Your task to perform on an android device: Open ESPN.com Image 0: 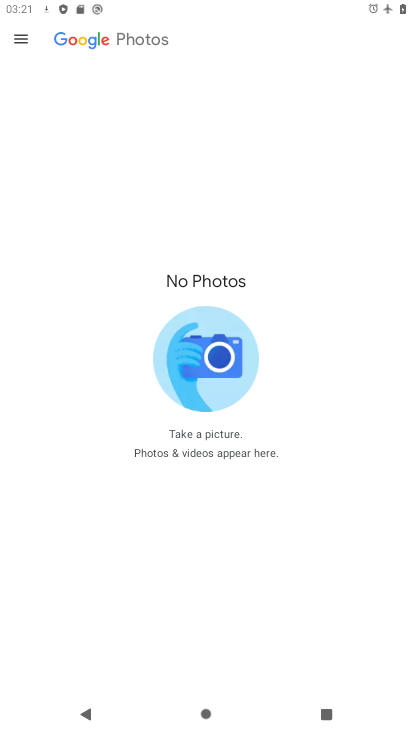
Step 0: press home button
Your task to perform on an android device: Open ESPN.com Image 1: 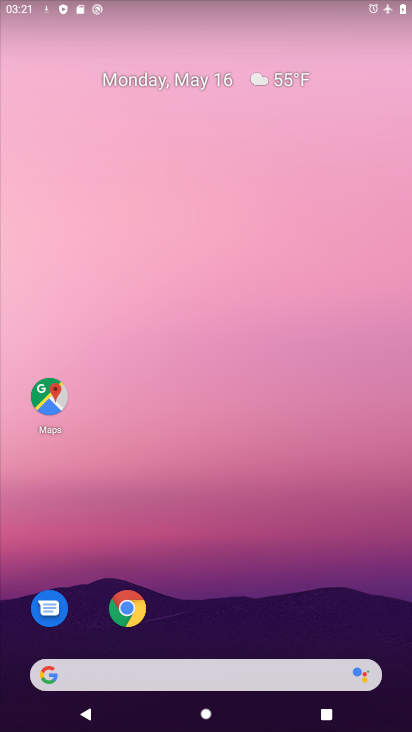
Step 1: click (118, 594)
Your task to perform on an android device: Open ESPN.com Image 2: 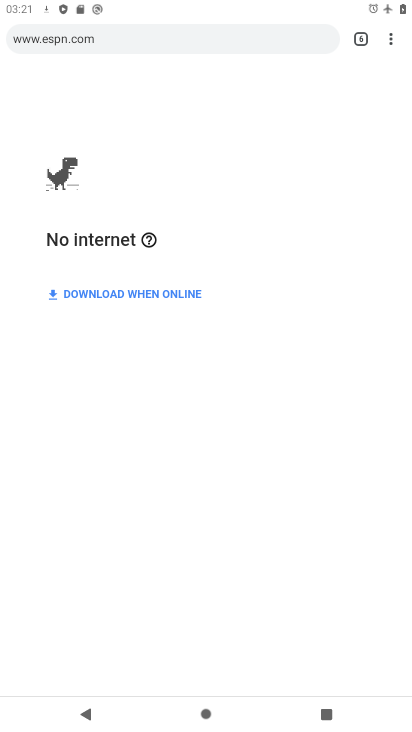
Step 2: click (357, 33)
Your task to perform on an android device: Open ESPN.com Image 3: 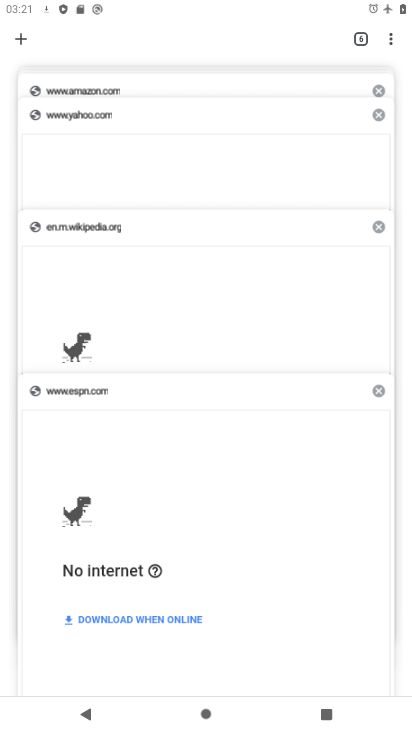
Step 3: click (23, 24)
Your task to perform on an android device: Open ESPN.com Image 4: 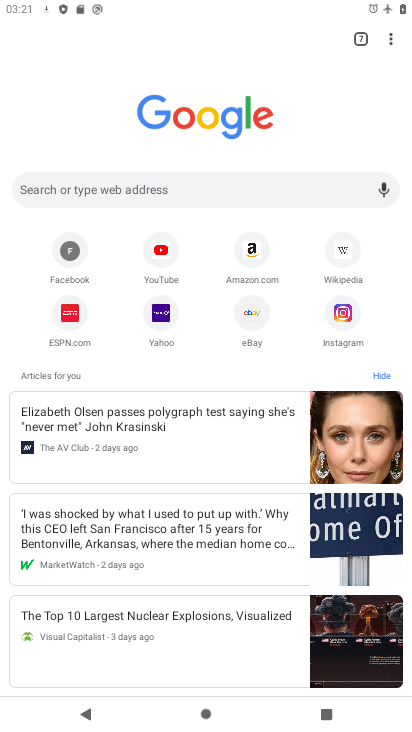
Step 4: click (54, 319)
Your task to perform on an android device: Open ESPN.com Image 5: 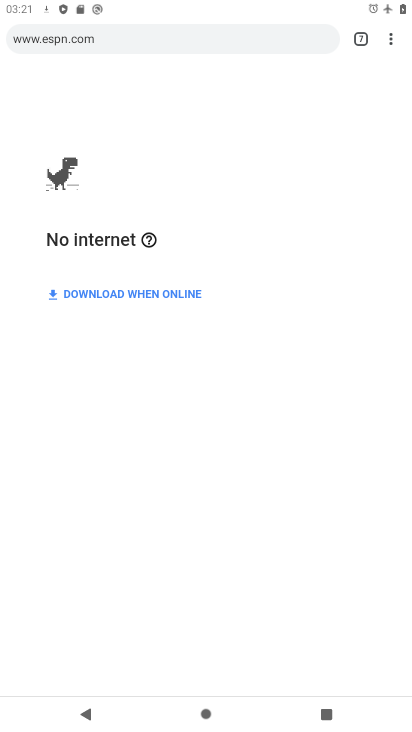
Step 5: task complete